Your task to perform on an android device: Open privacy settings Image 0: 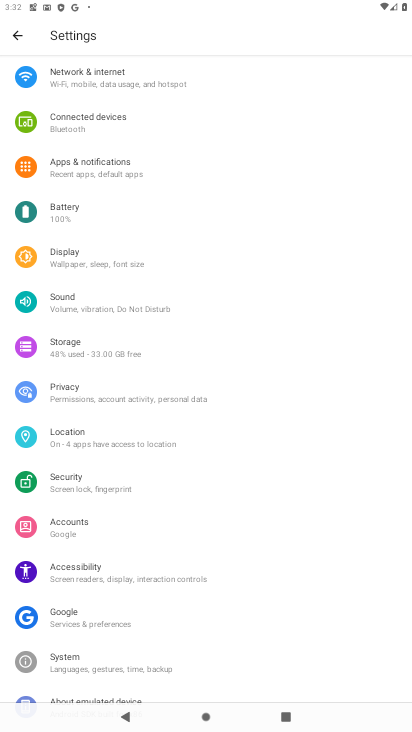
Step 0: click (52, 394)
Your task to perform on an android device: Open privacy settings Image 1: 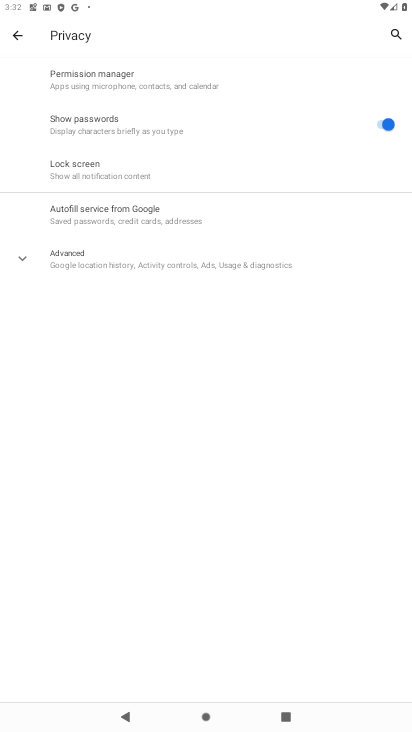
Step 1: click (73, 256)
Your task to perform on an android device: Open privacy settings Image 2: 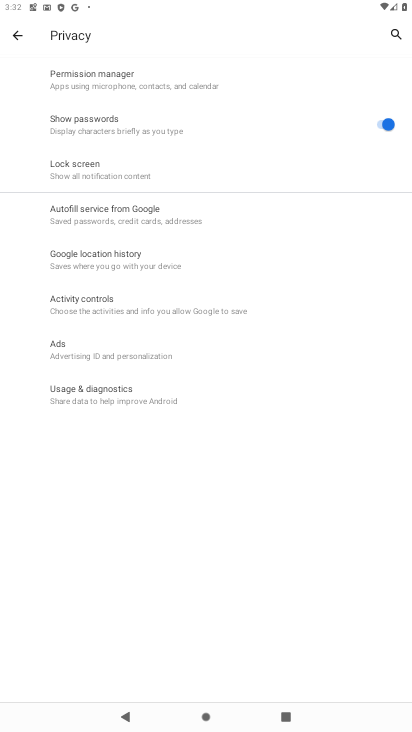
Step 2: task complete